Your task to perform on an android device: move an email to a new category in the gmail app Image 0: 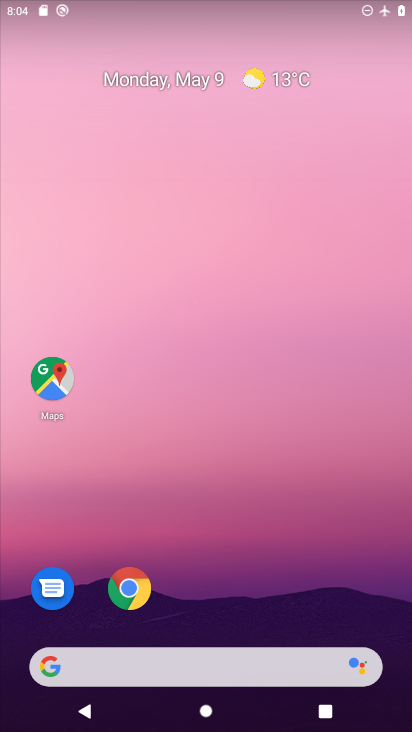
Step 0: drag from (298, 541) to (234, 75)
Your task to perform on an android device: move an email to a new category in the gmail app Image 1: 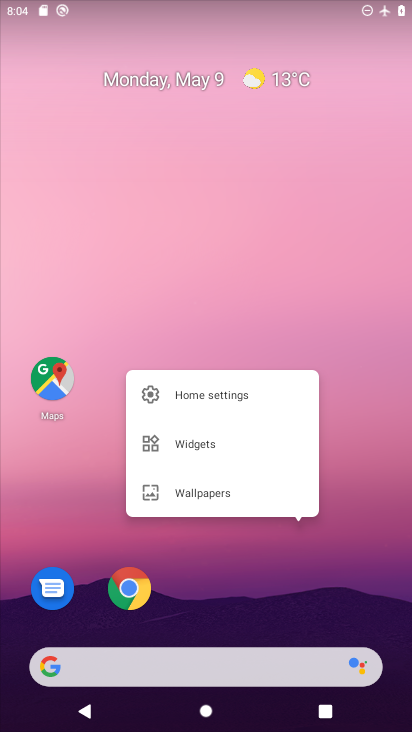
Step 1: click (354, 606)
Your task to perform on an android device: move an email to a new category in the gmail app Image 2: 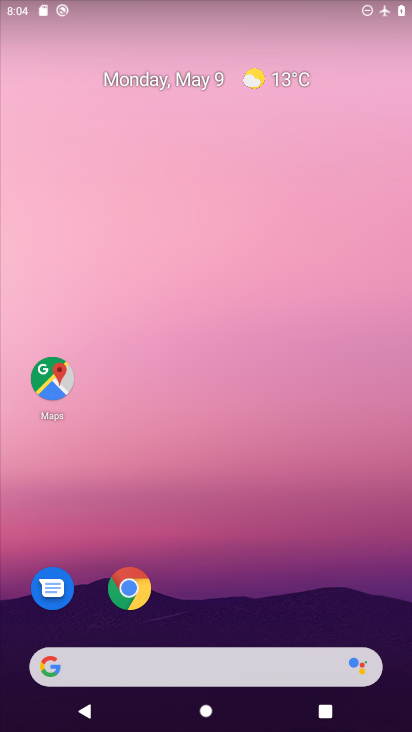
Step 2: drag from (299, 605) to (299, 441)
Your task to perform on an android device: move an email to a new category in the gmail app Image 3: 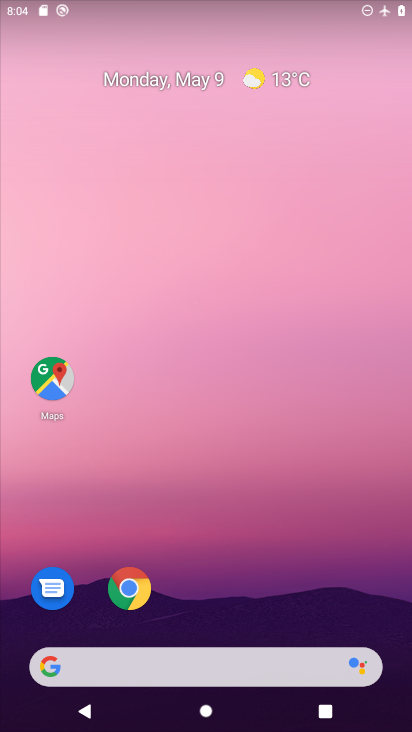
Step 3: drag from (276, 592) to (268, 333)
Your task to perform on an android device: move an email to a new category in the gmail app Image 4: 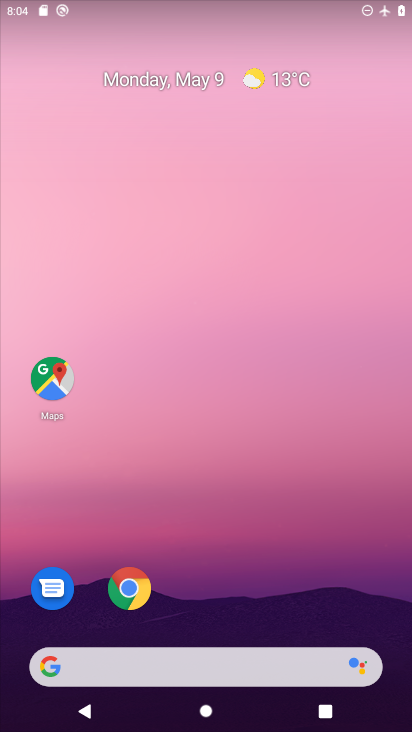
Step 4: drag from (240, 558) to (216, 169)
Your task to perform on an android device: move an email to a new category in the gmail app Image 5: 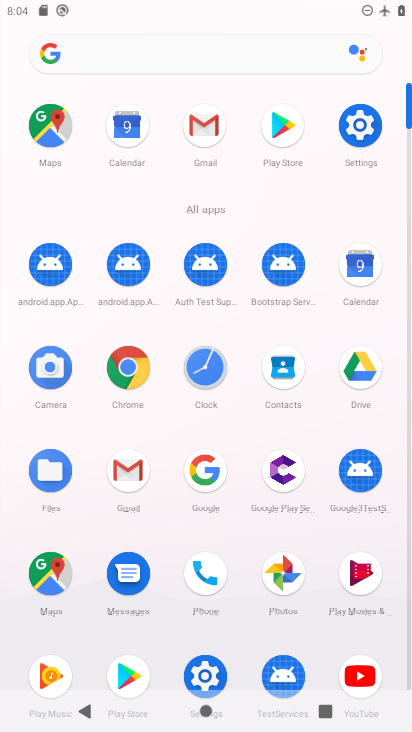
Step 5: click (212, 144)
Your task to perform on an android device: move an email to a new category in the gmail app Image 6: 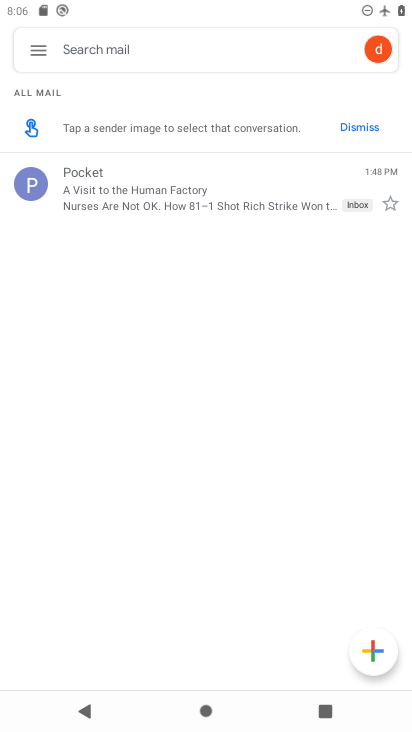
Step 6: click (36, 44)
Your task to perform on an android device: move an email to a new category in the gmail app Image 7: 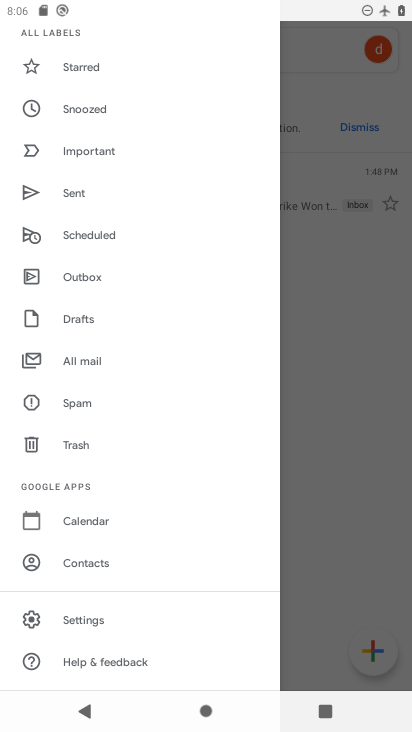
Step 7: click (91, 351)
Your task to perform on an android device: move an email to a new category in the gmail app Image 8: 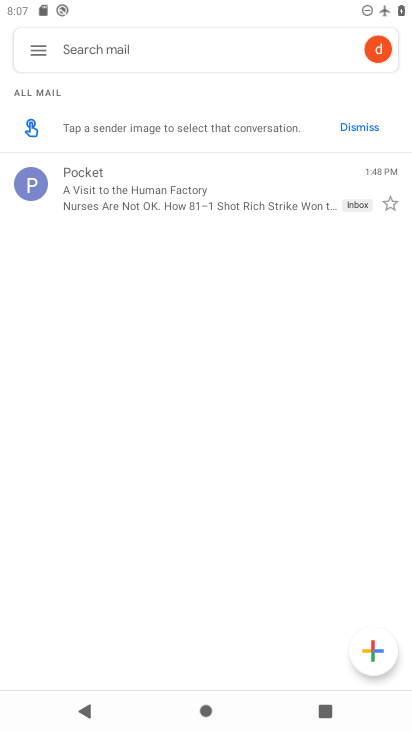
Step 8: click (228, 196)
Your task to perform on an android device: move an email to a new category in the gmail app Image 9: 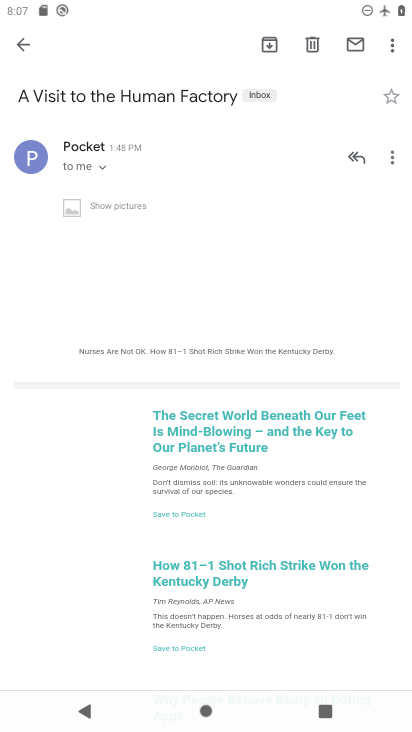
Step 9: click (397, 54)
Your task to perform on an android device: move an email to a new category in the gmail app Image 10: 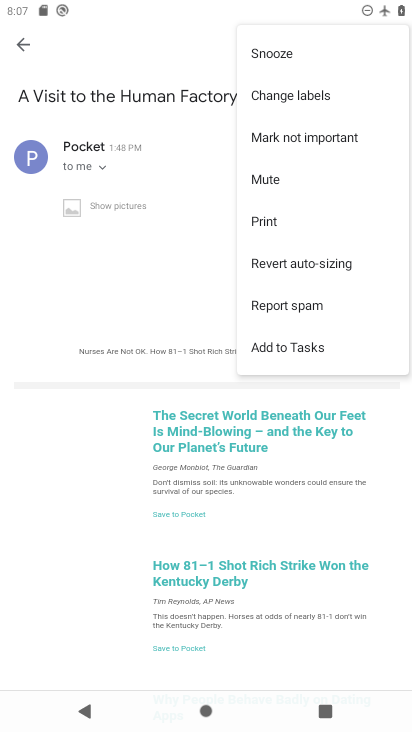
Step 10: click (349, 89)
Your task to perform on an android device: move an email to a new category in the gmail app Image 11: 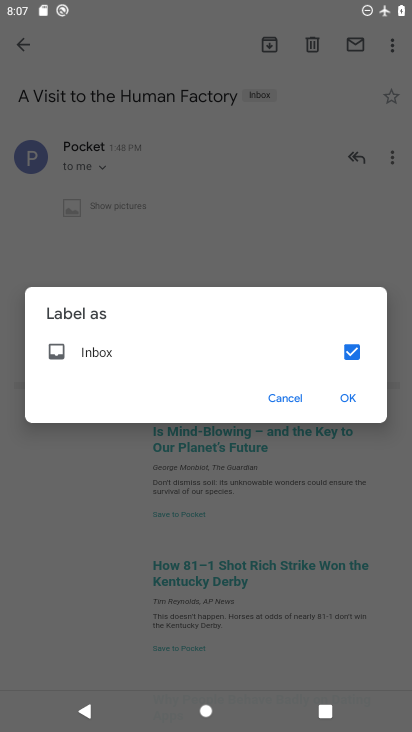
Step 11: click (349, 389)
Your task to perform on an android device: move an email to a new category in the gmail app Image 12: 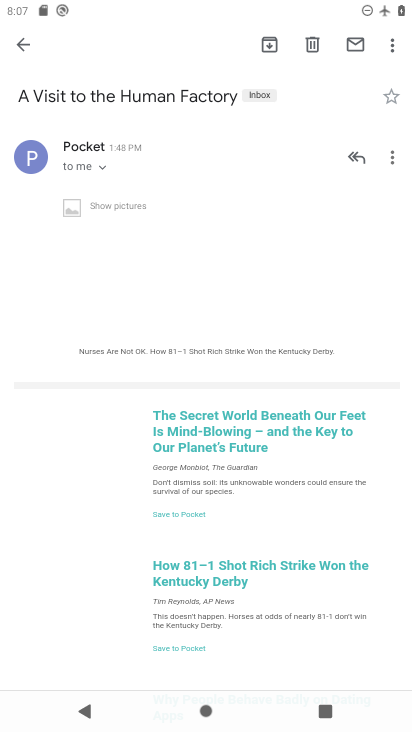
Step 12: task complete